Your task to perform on an android device: Open Android settings Image 0: 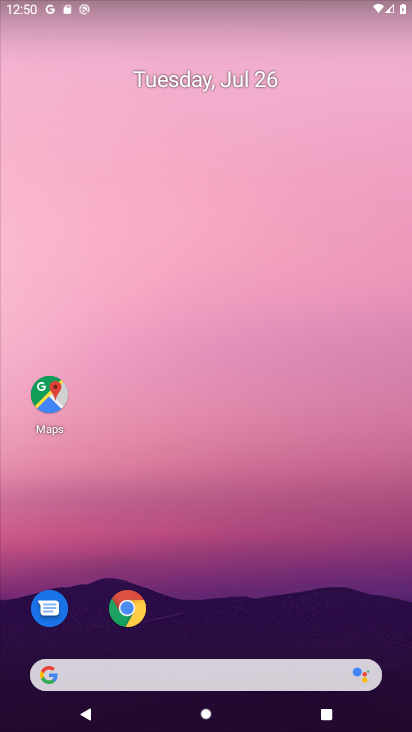
Step 0: drag from (236, 636) to (191, 150)
Your task to perform on an android device: Open Android settings Image 1: 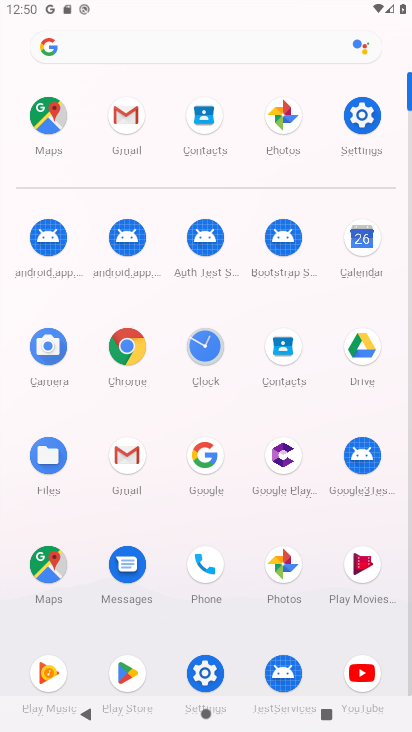
Step 1: click (351, 128)
Your task to perform on an android device: Open Android settings Image 2: 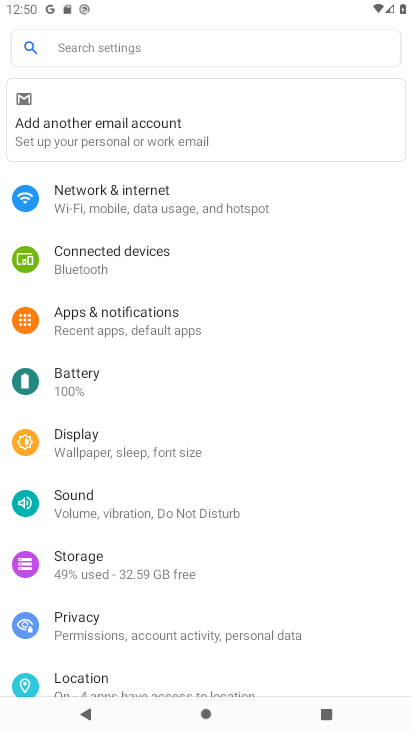
Step 2: task complete